Your task to perform on an android device: empty trash in the gmail app Image 0: 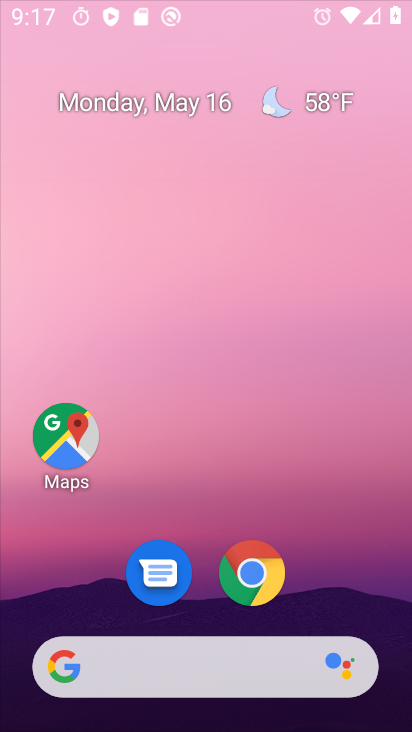
Step 0: drag from (228, 721) to (200, 311)
Your task to perform on an android device: empty trash in the gmail app Image 1: 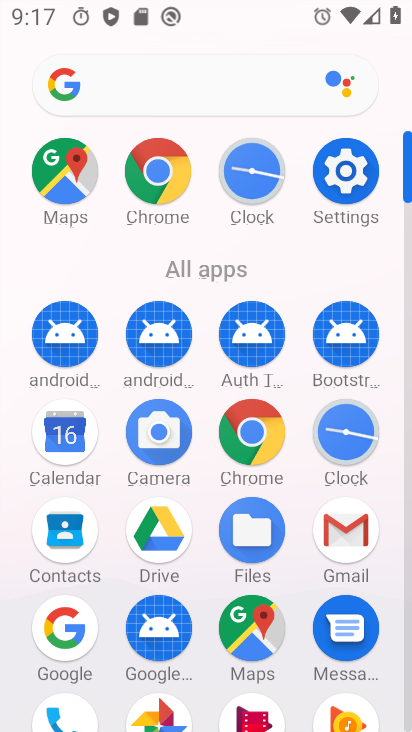
Step 1: click (342, 523)
Your task to perform on an android device: empty trash in the gmail app Image 2: 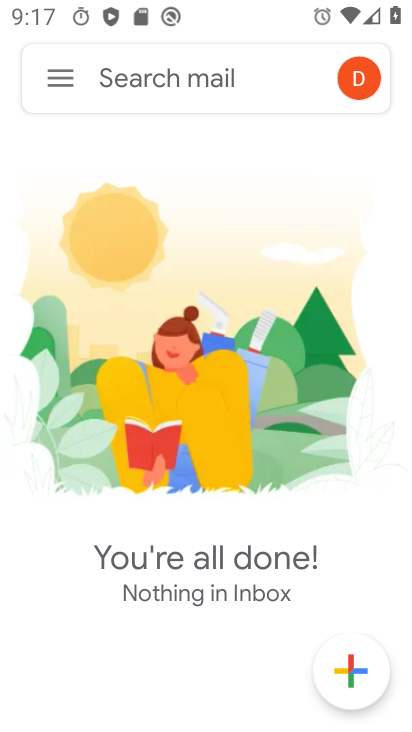
Step 2: click (59, 94)
Your task to perform on an android device: empty trash in the gmail app Image 3: 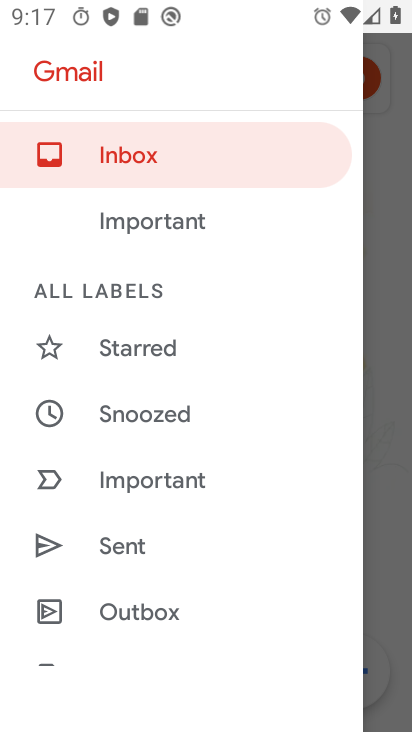
Step 3: drag from (167, 575) to (200, 198)
Your task to perform on an android device: empty trash in the gmail app Image 4: 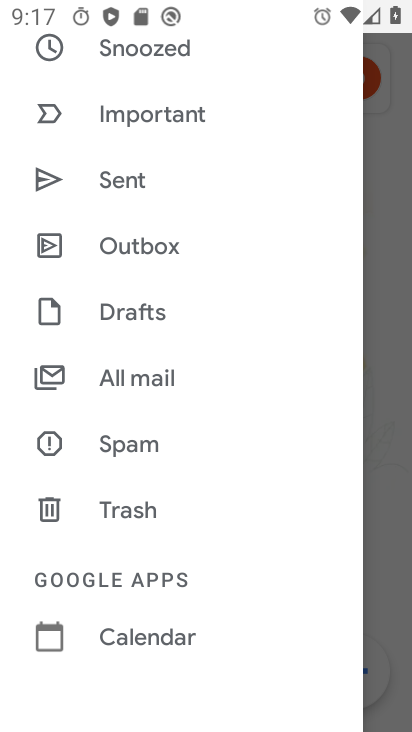
Step 4: click (135, 510)
Your task to perform on an android device: empty trash in the gmail app Image 5: 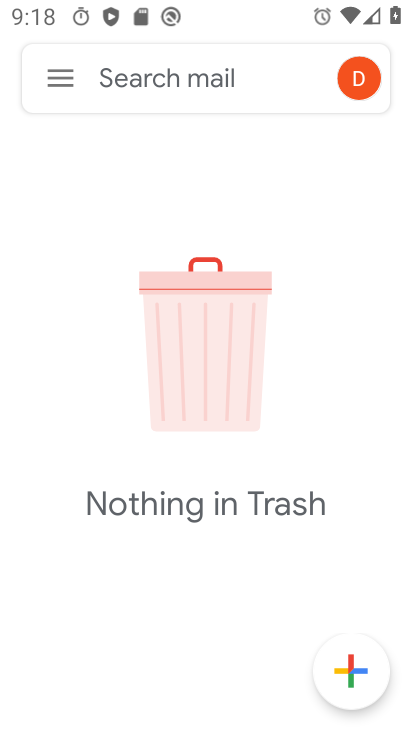
Step 5: task complete